Your task to perform on an android device: turn on priority inbox in the gmail app Image 0: 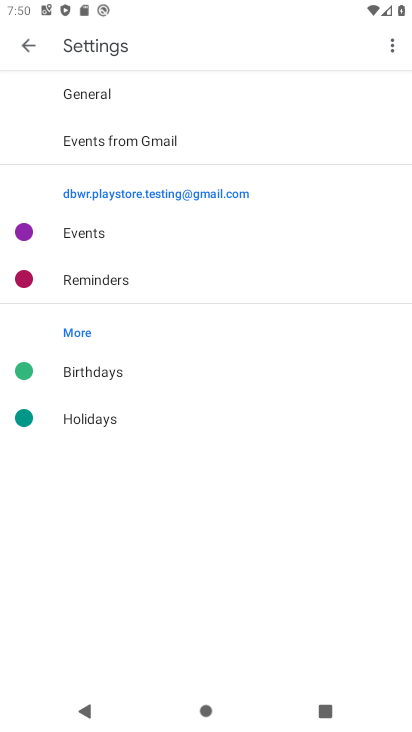
Step 0: press home button
Your task to perform on an android device: turn on priority inbox in the gmail app Image 1: 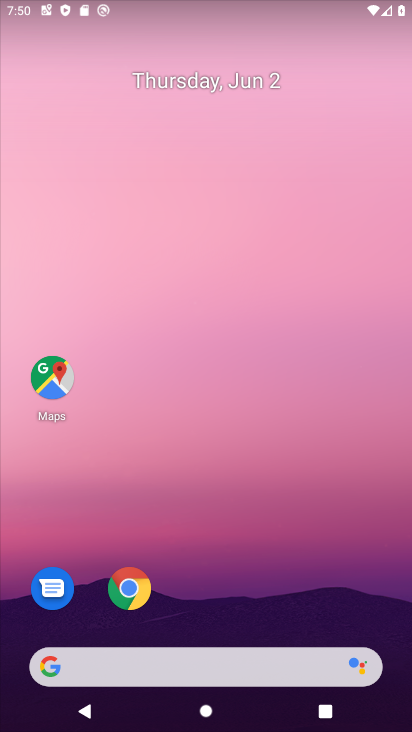
Step 1: drag from (214, 647) to (210, 158)
Your task to perform on an android device: turn on priority inbox in the gmail app Image 2: 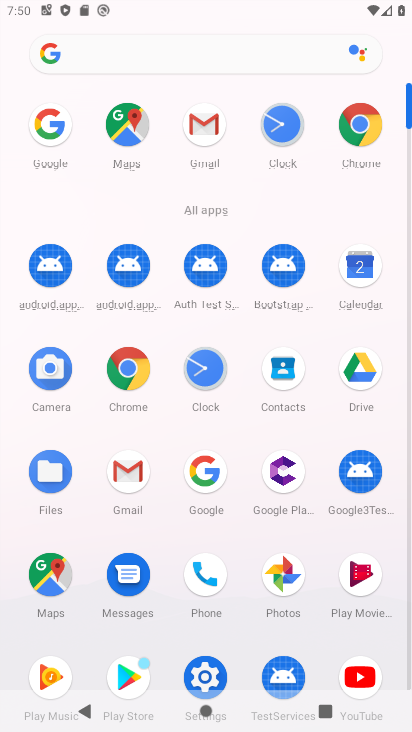
Step 2: click (136, 480)
Your task to perform on an android device: turn on priority inbox in the gmail app Image 3: 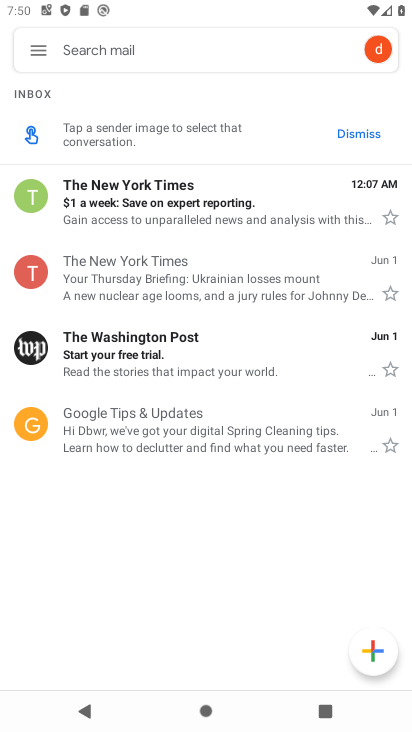
Step 3: click (41, 46)
Your task to perform on an android device: turn on priority inbox in the gmail app Image 4: 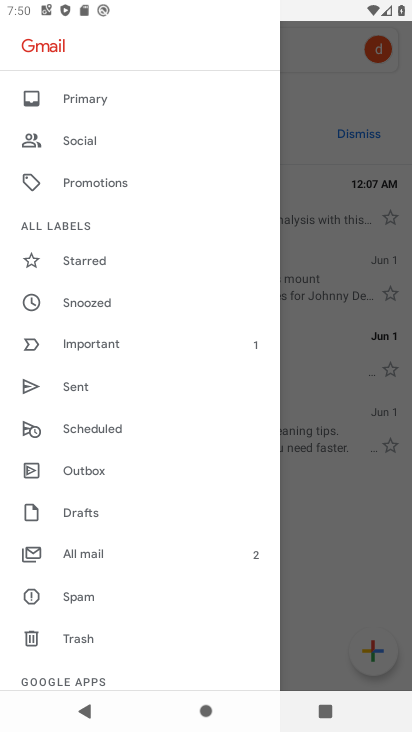
Step 4: drag from (87, 547) to (169, 46)
Your task to perform on an android device: turn on priority inbox in the gmail app Image 5: 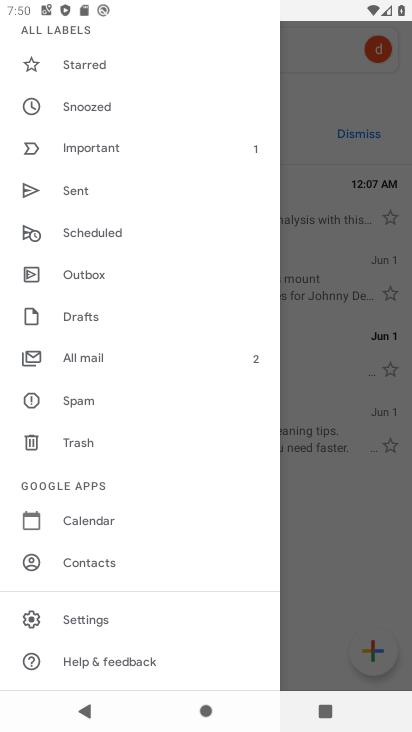
Step 5: click (113, 619)
Your task to perform on an android device: turn on priority inbox in the gmail app Image 6: 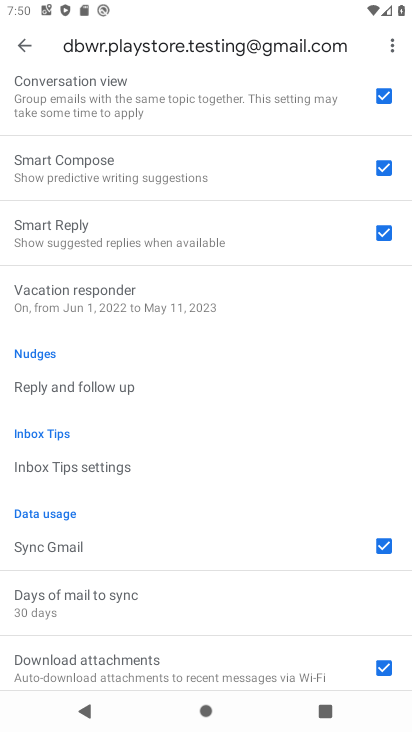
Step 6: drag from (105, 292) to (65, 720)
Your task to perform on an android device: turn on priority inbox in the gmail app Image 7: 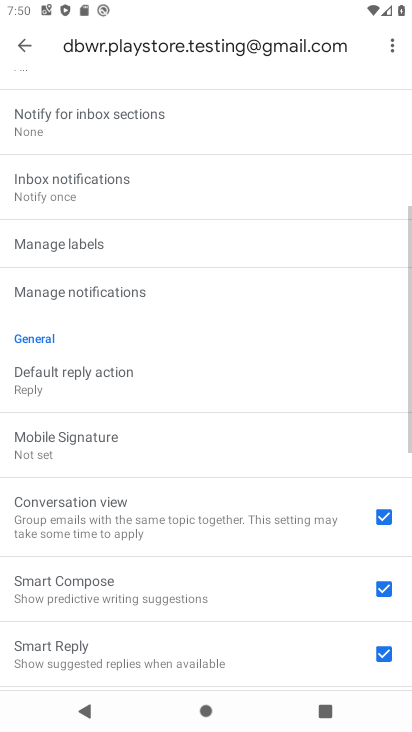
Step 7: drag from (145, 374) to (96, 725)
Your task to perform on an android device: turn on priority inbox in the gmail app Image 8: 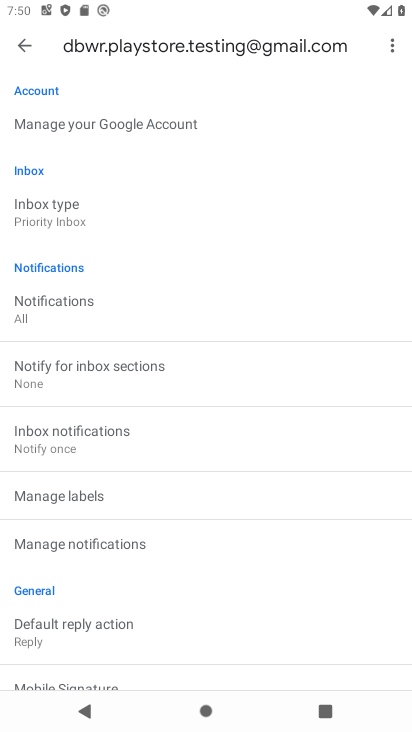
Step 8: click (64, 205)
Your task to perform on an android device: turn on priority inbox in the gmail app Image 9: 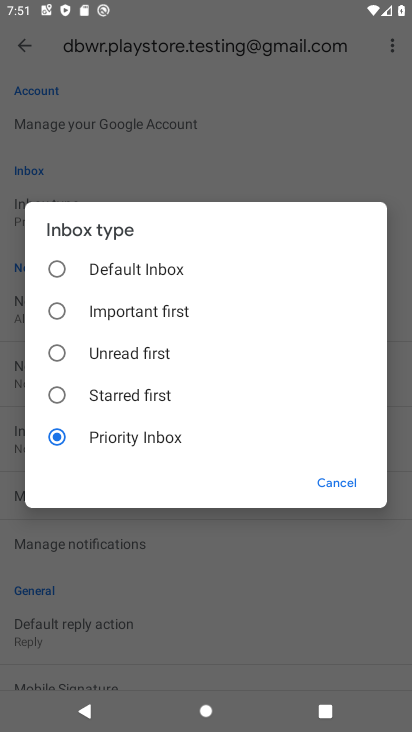
Step 9: task complete